Your task to perform on an android device: choose inbox layout in the gmail app Image 0: 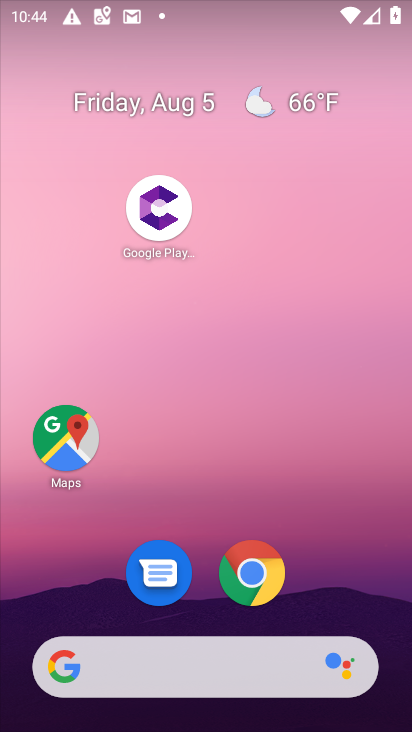
Step 0: press home button
Your task to perform on an android device: choose inbox layout in the gmail app Image 1: 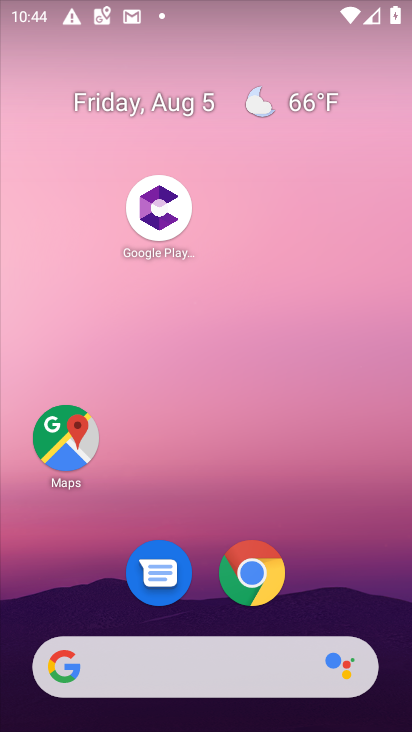
Step 1: click (244, 126)
Your task to perform on an android device: choose inbox layout in the gmail app Image 2: 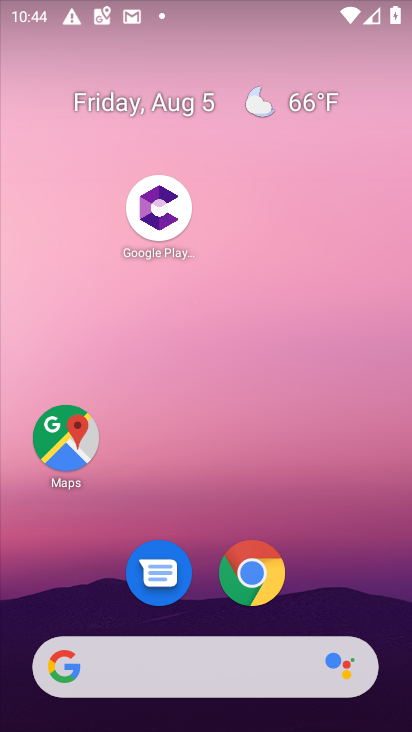
Step 2: drag from (207, 617) to (252, 55)
Your task to perform on an android device: choose inbox layout in the gmail app Image 3: 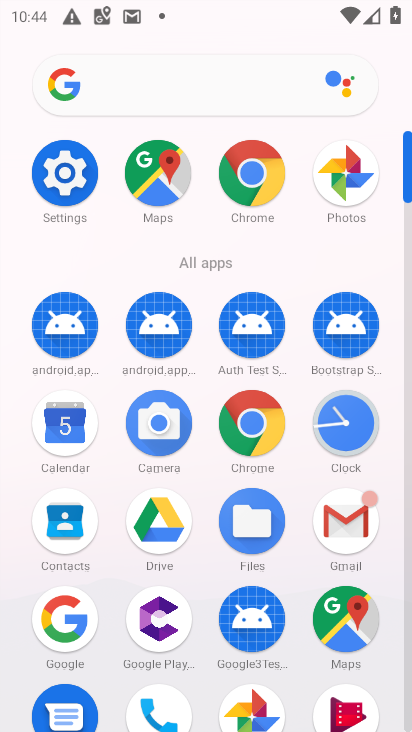
Step 3: click (341, 512)
Your task to perform on an android device: choose inbox layout in the gmail app Image 4: 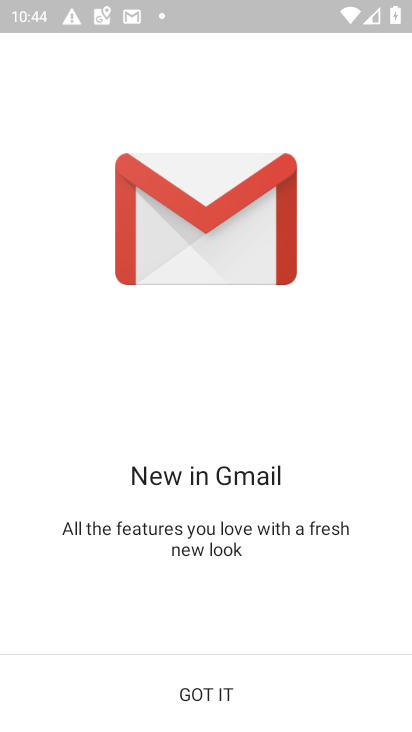
Step 4: click (212, 708)
Your task to perform on an android device: choose inbox layout in the gmail app Image 5: 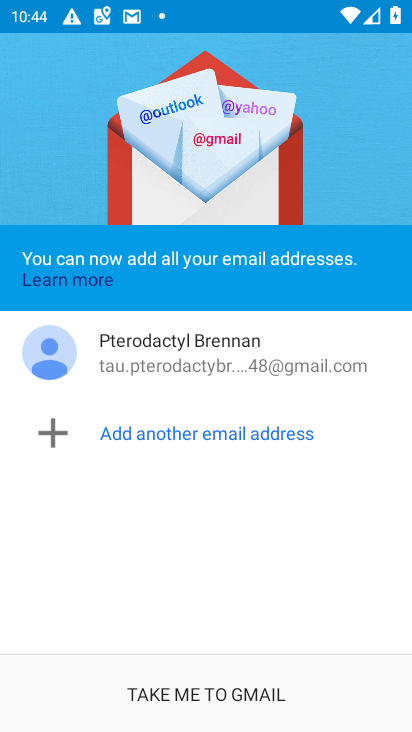
Step 5: click (200, 703)
Your task to perform on an android device: choose inbox layout in the gmail app Image 6: 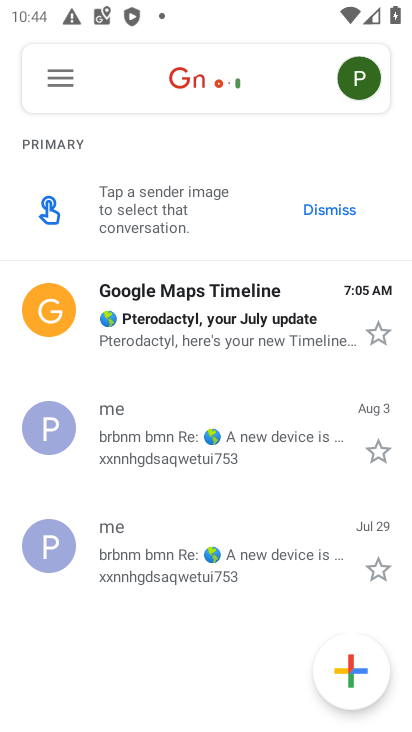
Step 6: click (60, 83)
Your task to perform on an android device: choose inbox layout in the gmail app Image 7: 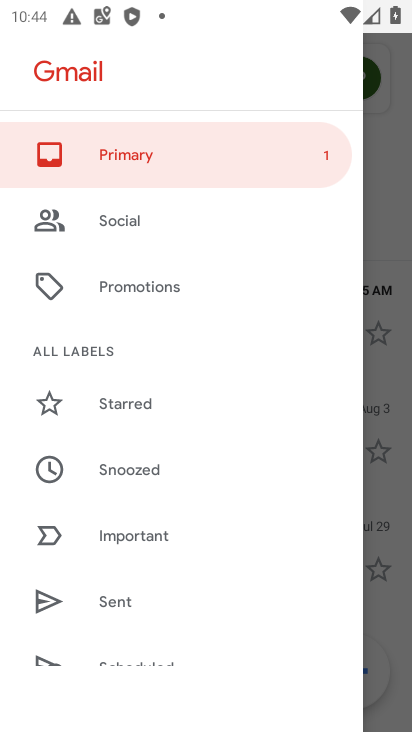
Step 7: drag from (170, 624) to (210, 114)
Your task to perform on an android device: choose inbox layout in the gmail app Image 8: 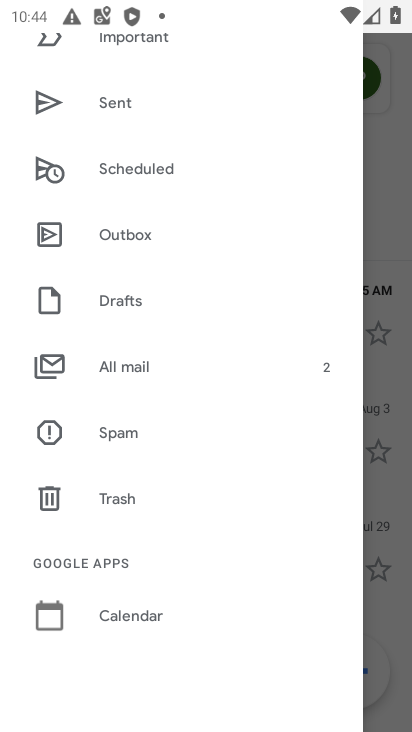
Step 8: drag from (187, 596) to (230, 34)
Your task to perform on an android device: choose inbox layout in the gmail app Image 9: 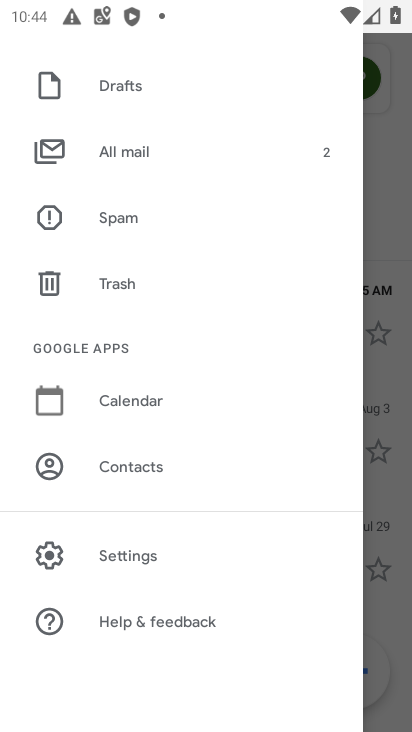
Step 9: click (163, 554)
Your task to perform on an android device: choose inbox layout in the gmail app Image 10: 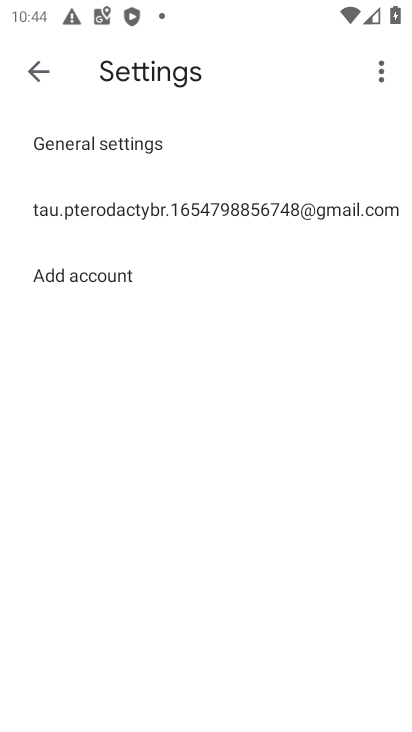
Step 10: click (201, 211)
Your task to perform on an android device: choose inbox layout in the gmail app Image 11: 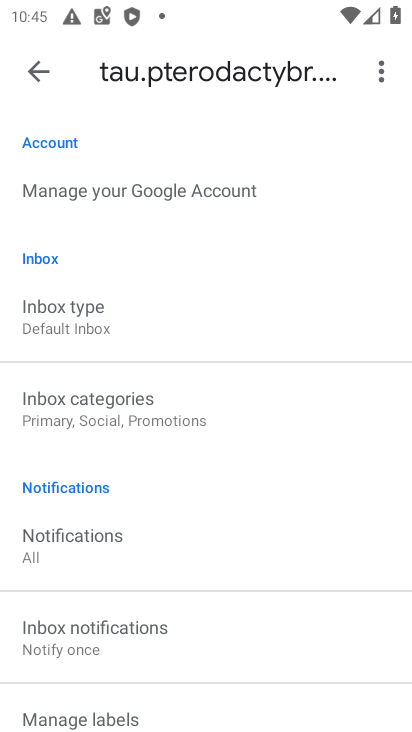
Step 11: click (129, 316)
Your task to perform on an android device: choose inbox layout in the gmail app Image 12: 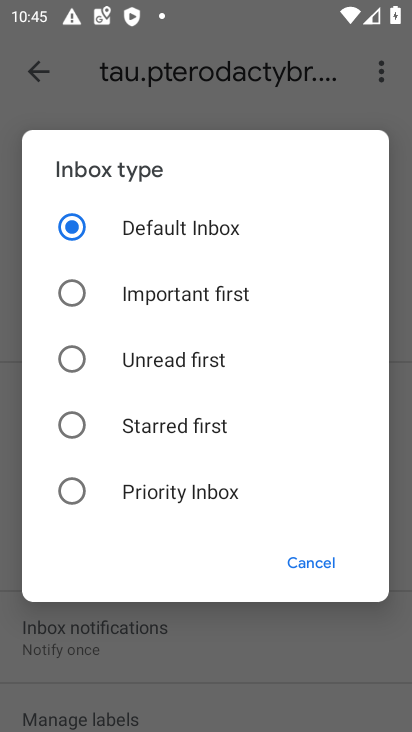
Step 12: click (70, 289)
Your task to perform on an android device: choose inbox layout in the gmail app Image 13: 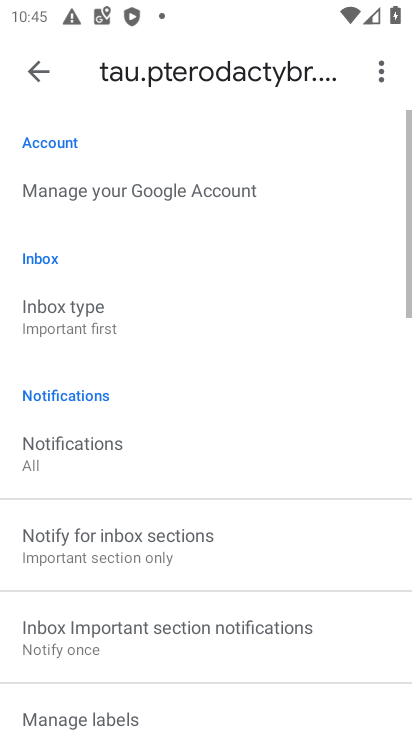
Step 13: task complete